Your task to perform on an android device: open app "Calculator" (install if not already installed) Image 0: 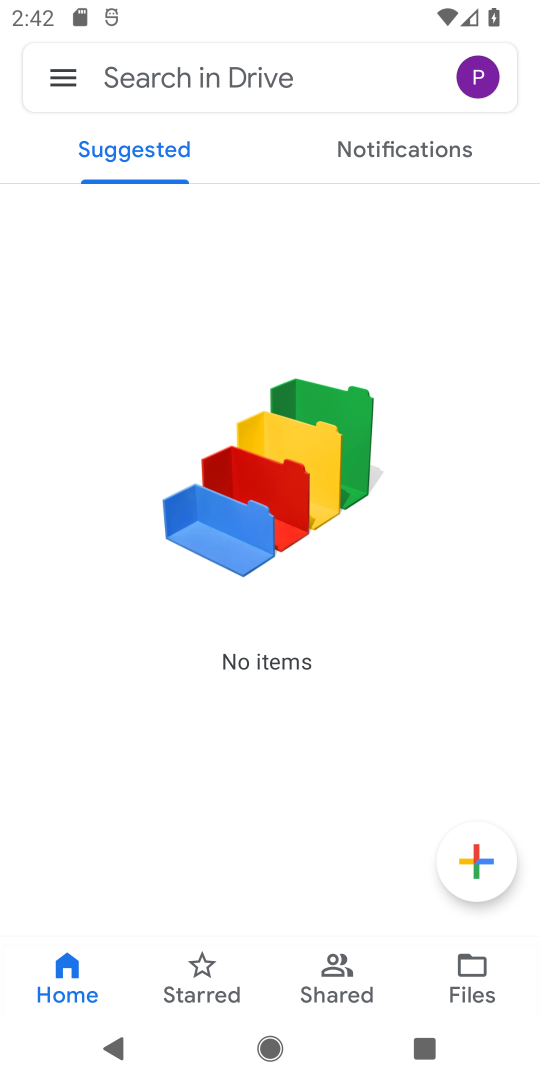
Step 0: press home button
Your task to perform on an android device: open app "Calculator" (install if not already installed) Image 1: 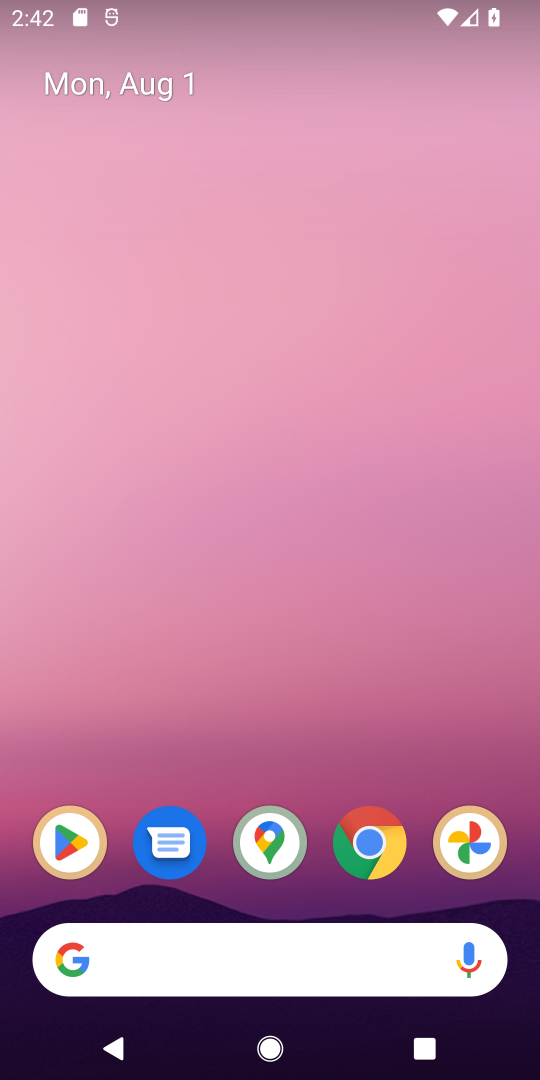
Step 1: click (52, 839)
Your task to perform on an android device: open app "Calculator" (install if not already installed) Image 2: 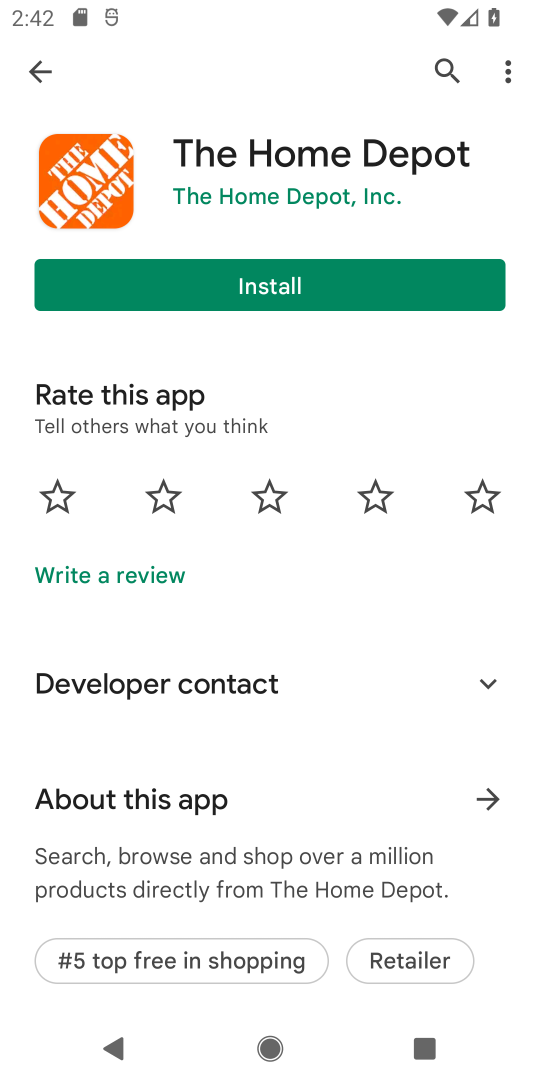
Step 2: click (30, 54)
Your task to perform on an android device: open app "Calculator" (install if not already installed) Image 3: 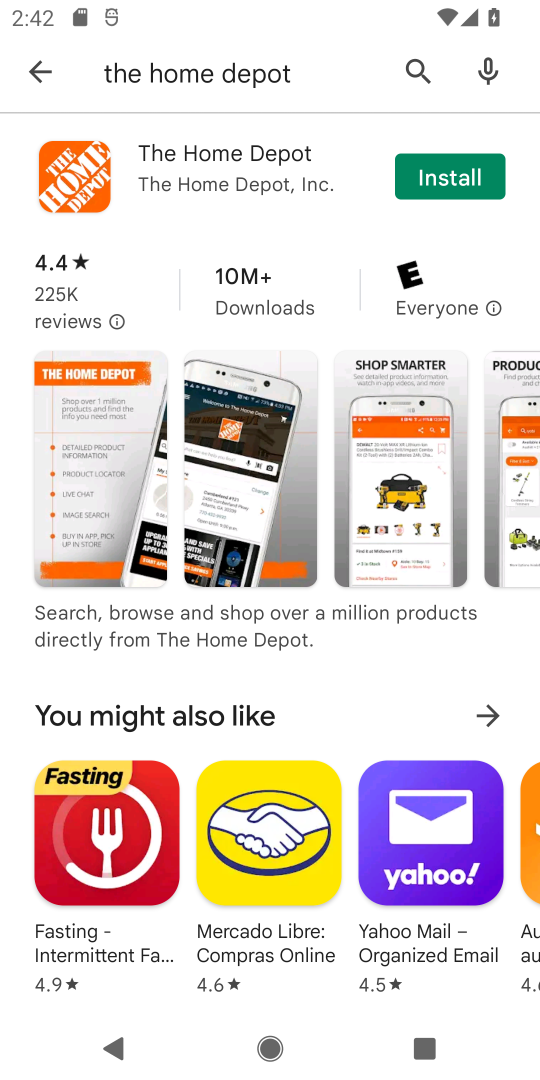
Step 3: click (248, 89)
Your task to perform on an android device: open app "Calculator" (install if not already installed) Image 4: 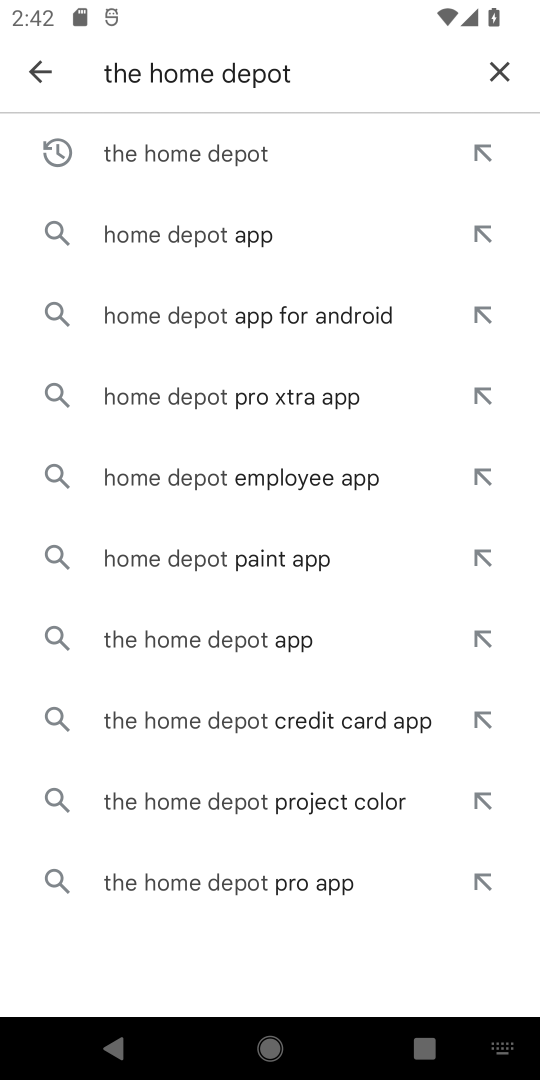
Step 4: click (503, 73)
Your task to perform on an android device: open app "Calculator" (install if not already installed) Image 5: 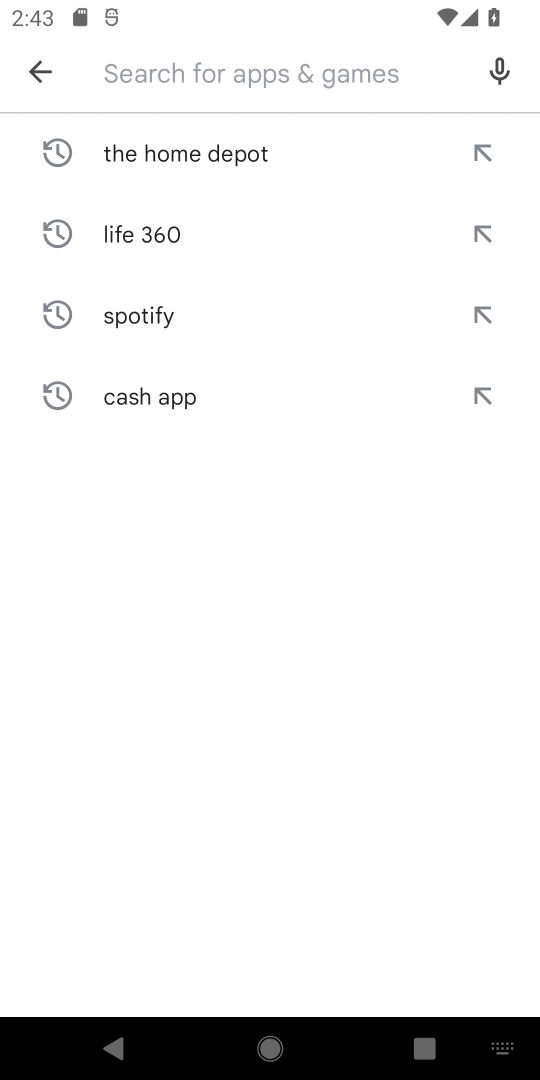
Step 5: type "Calculator"
Your task to perform on an android device: open app "Calculator" (install if not already installed) Image 6: 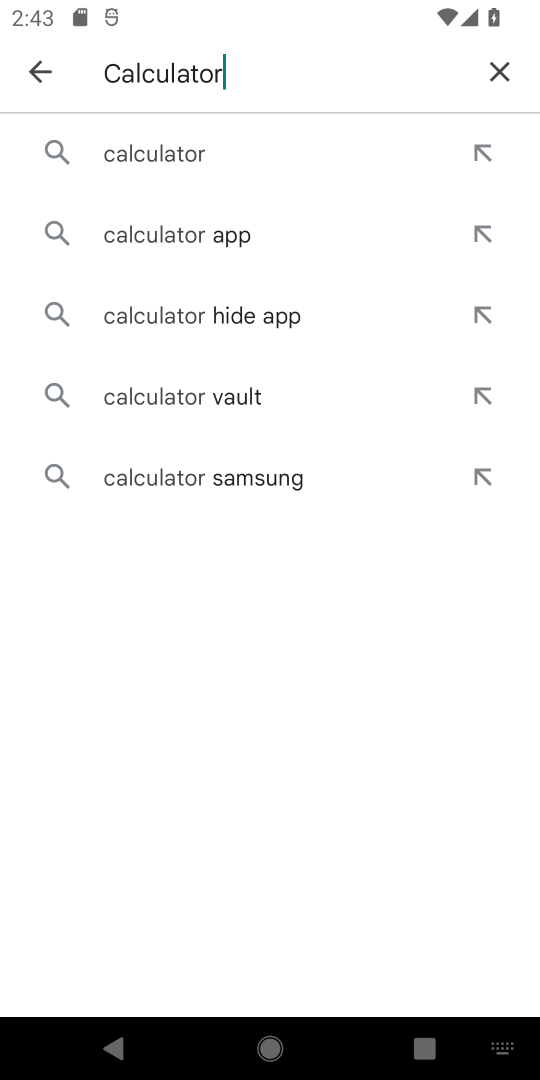
Step 6: click (220, 170)
Your task to perform on an android device: open app "Calculator" (install if not already installed) Image 7: 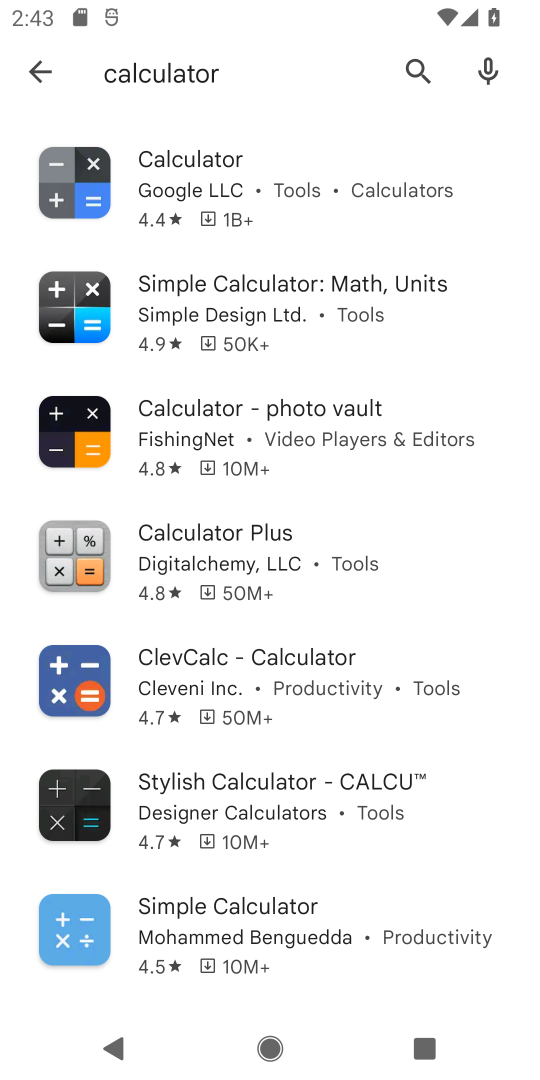
Step 7: click (234, 186)
Your task to perform on an android device: open app "Calculator" (install if not already installed) Image 8: 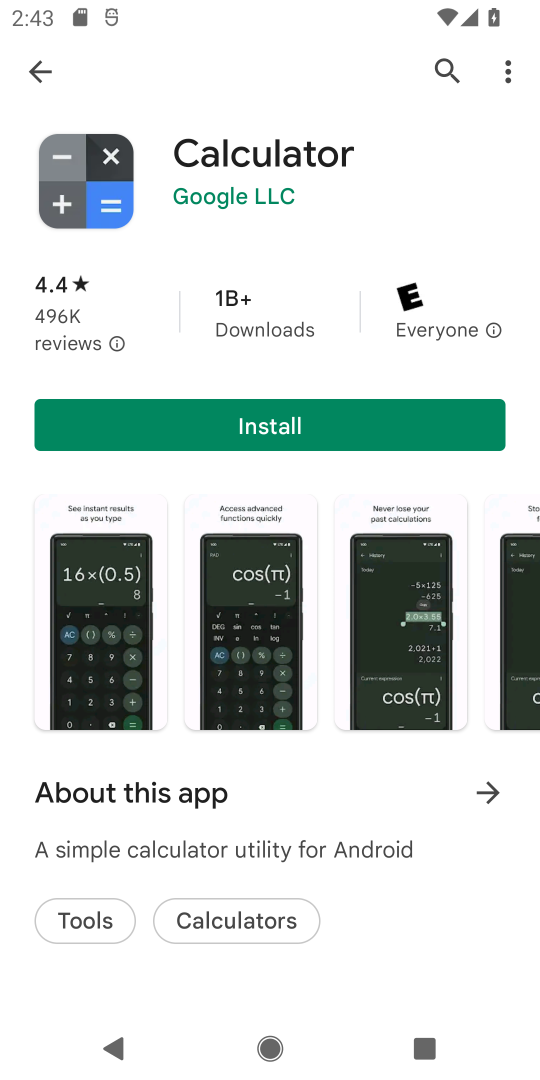
Step 8: click (304, 426)
Your task to perform on an android device: open app "Calculator" (install if not already installed) Image 9: 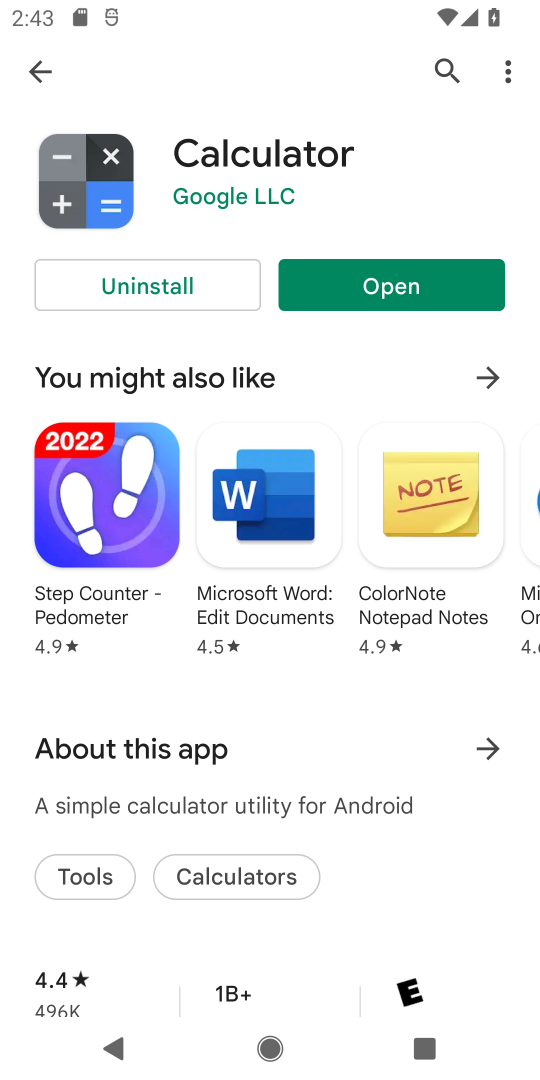
Step 9: click (392, 292)
Your task to perform on an android device: open app "Calculator" (install if not already installed) Image 10: 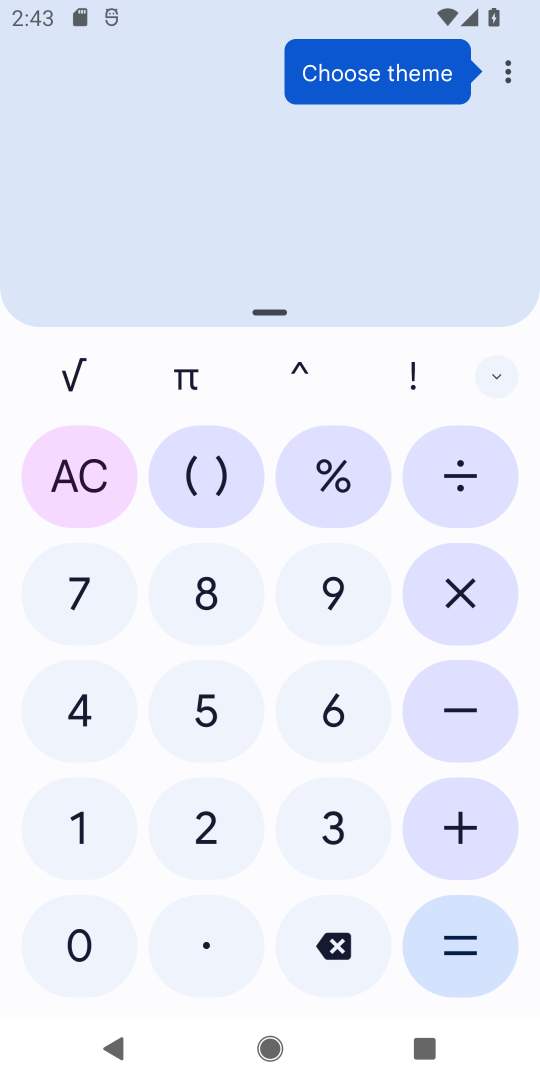
Step 10: task complete